Your task to perform on an android device: Open Maps and search for coffee Image 0: 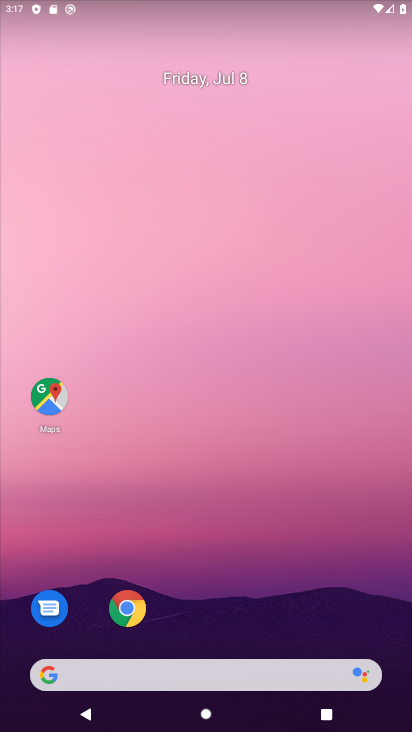
Step 0: drag from (285, 590) to (256, 164)
Your task to perform on an android device: Open Maps and search for coffee Image 1: 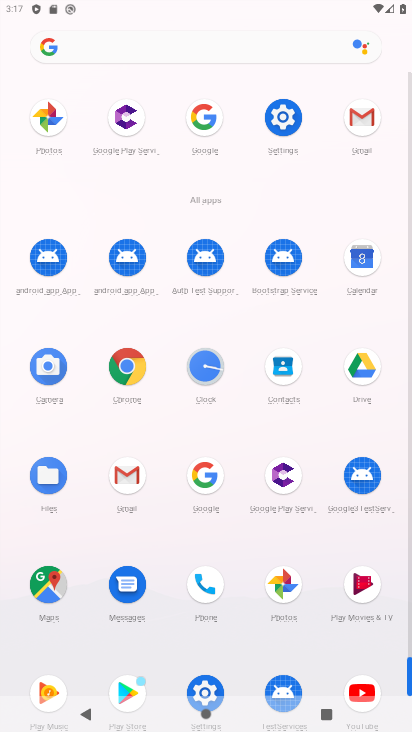
Step 1: click (37, 584)
Your task to perform on an android device: Open Maps and search for coffee Image 2: 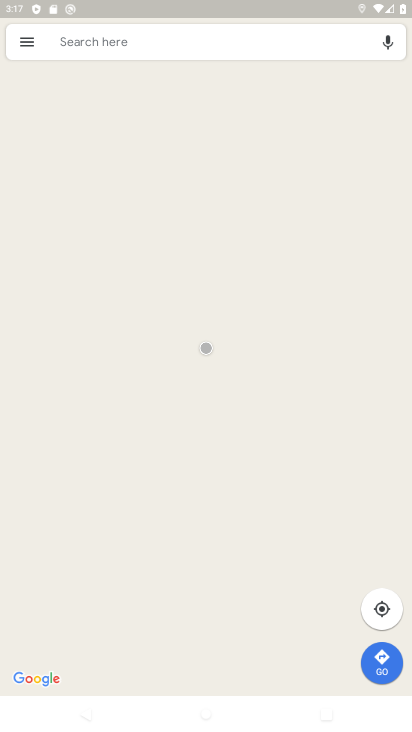
Step 2: click (238, 50)
Your task to perform on an android device: Open Maps and search for coffee Image 3: 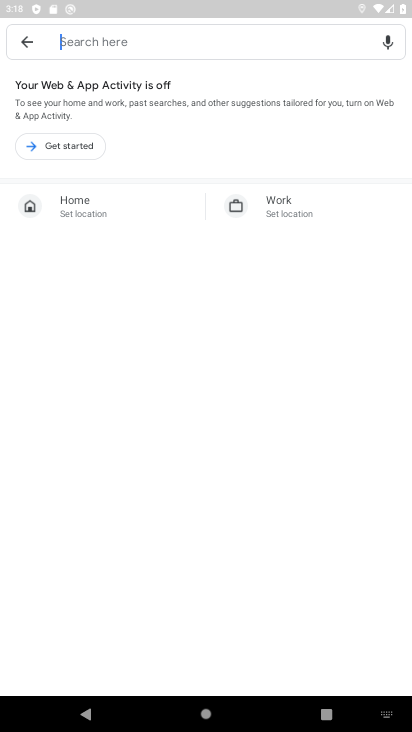
Step 3: type "coffee"
Your task to perform on an android device: Open Maps and search for coffee Image 4: 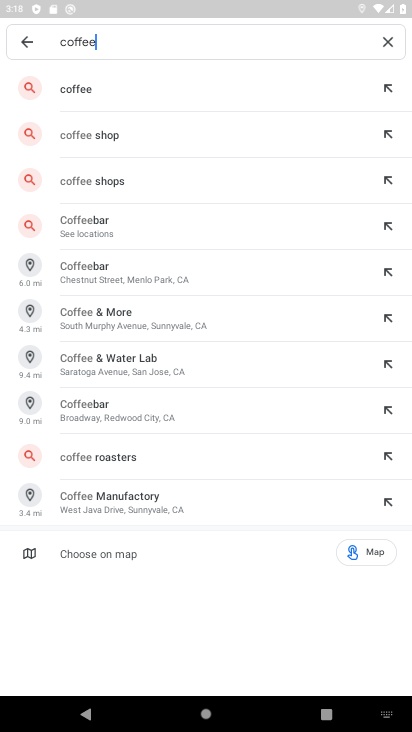
Step 4: click (76, 90)
Your task to perform on an android device: Open Maps and search for coffee Image 5: 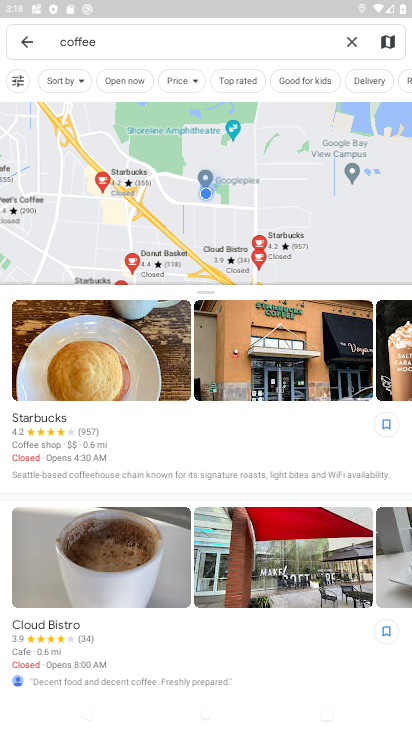
Step 5: task complete